Your task to perform on an android device: add a label to a message in the gmail app Image 0: 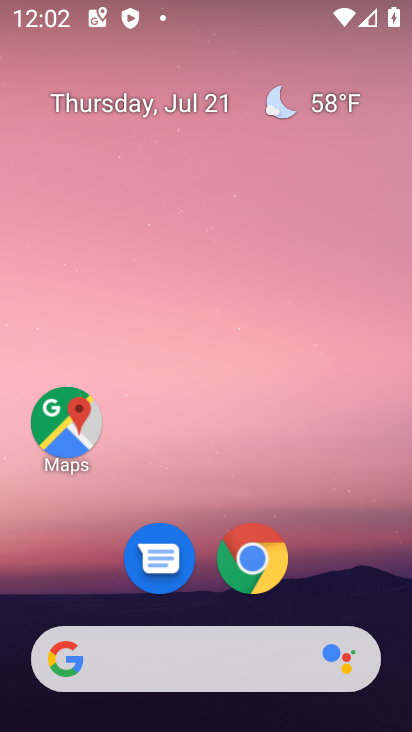
Step 0: drag from (34, 554) to (180, 104)
Your task to perform on an android device: add a label to a message in the gmail app Image 1: 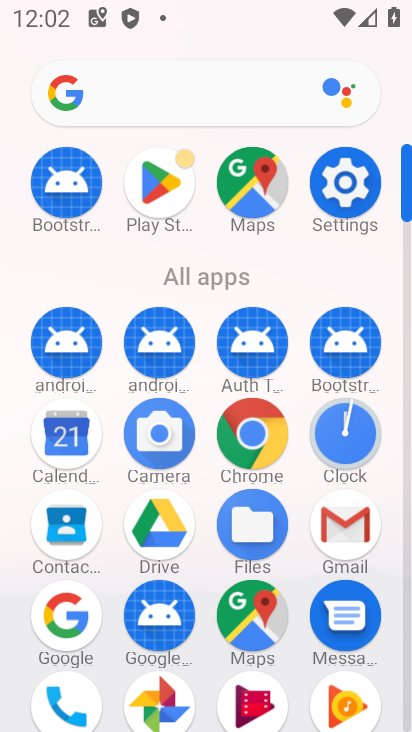
Step 1: click (351, 524)
Your task to perform on an android device: add a label to a message in the gmail app Image 2: 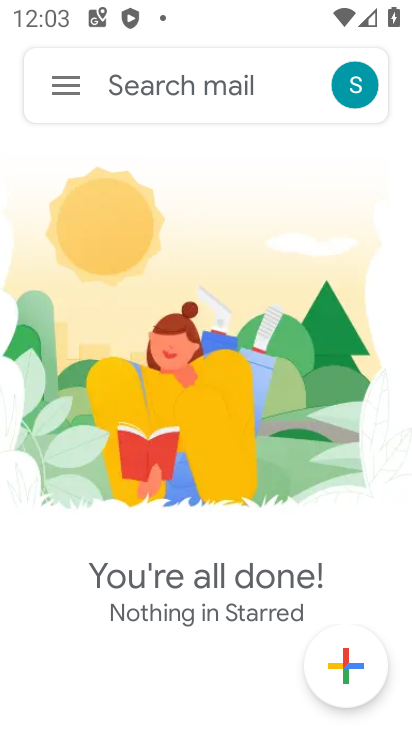
Step 2: click (64, 80)
Your task to perform on an android device: add a label to a message in the gmail app Image 3: 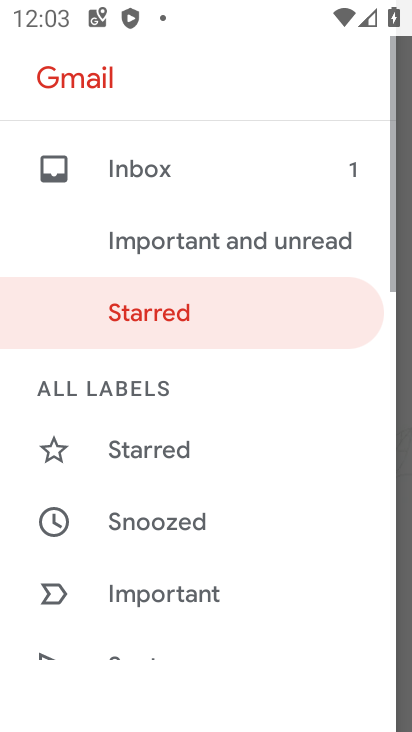
Step 3: drag from (210, 577) to (274, 191)
Your task to perform on an android device: add a label to a message in the gmail app Image 4: 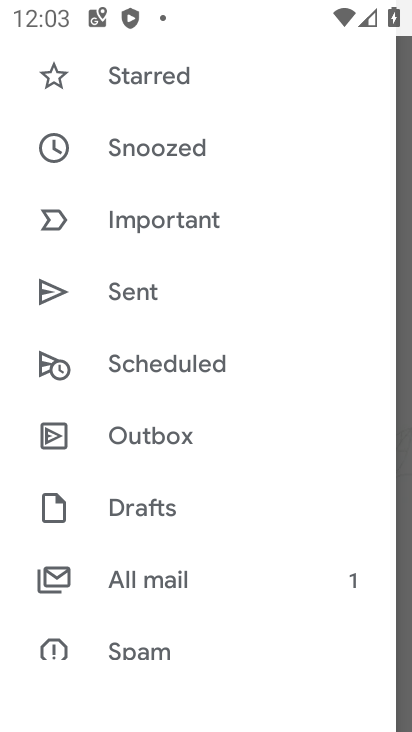
Step 4: click (182, 578)
Your task to perform on an android device: add a label to a message in the gmail app Image 5: 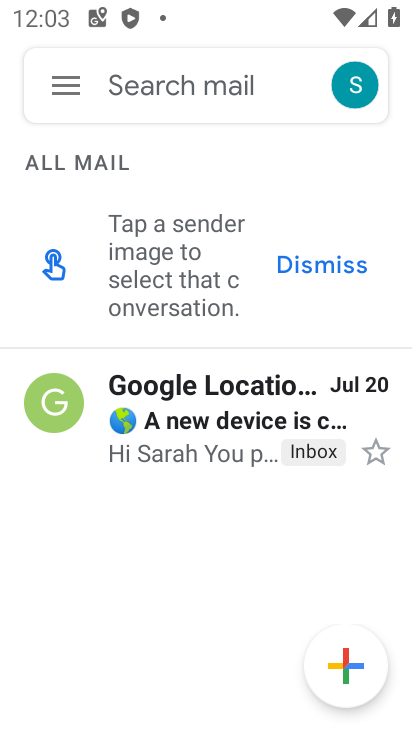
Step 5: click (218, 422)
Your task to perform on an android device: add a label to a message in the gmail app Image 6: 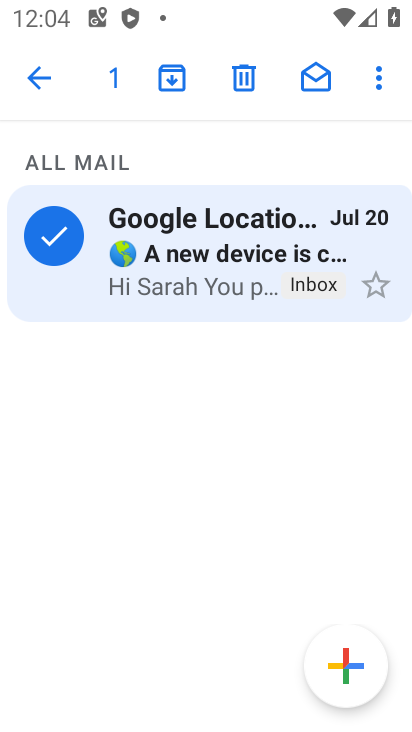
Step 6: click (368, 76)
Your task to perform on an android device: add a label to a message in the gmail app Image 7: 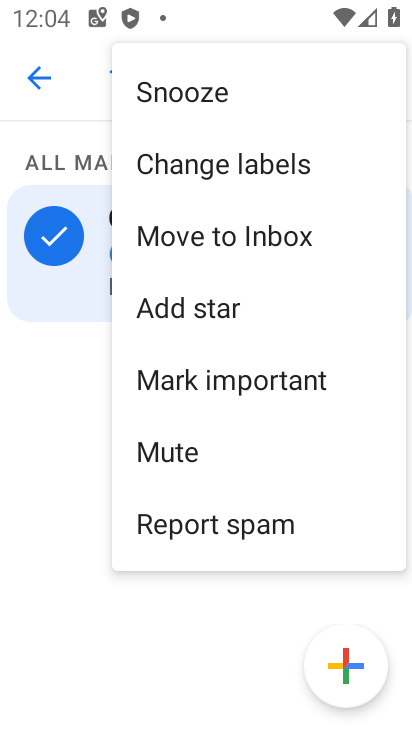
Step 7: click (195, 174)
Your task to perform on an android device: add a label to a message in the gmail app Image 8: 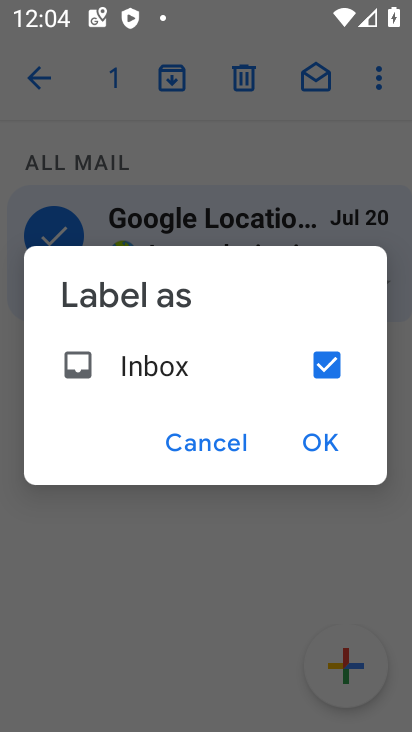
Step 8: click (305, 441)
Your task to perform on an android device: add a label to a message in the gmail app Image 9: 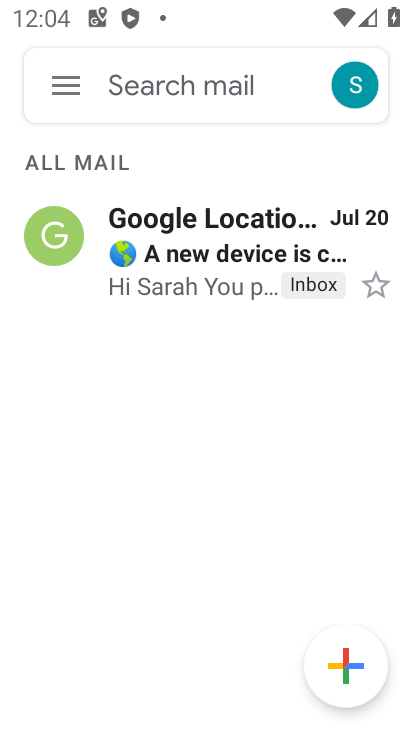
Step 9: task complete